Your task to perform on an android device: What is the news today? Image 0: 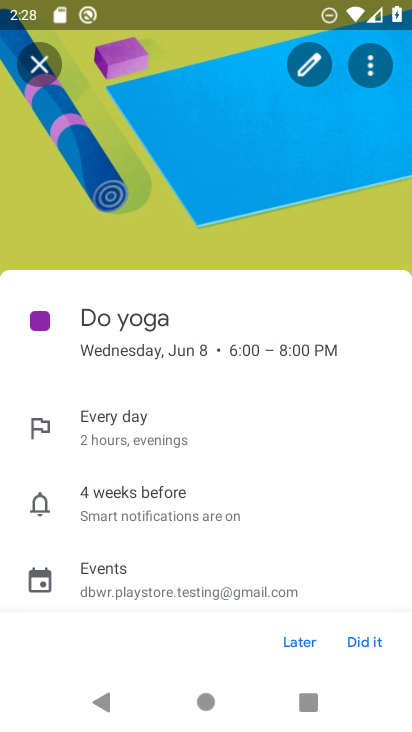
Step 0: click (28, 58)
Your task to perform on an android device: What is the news today? Image 1: 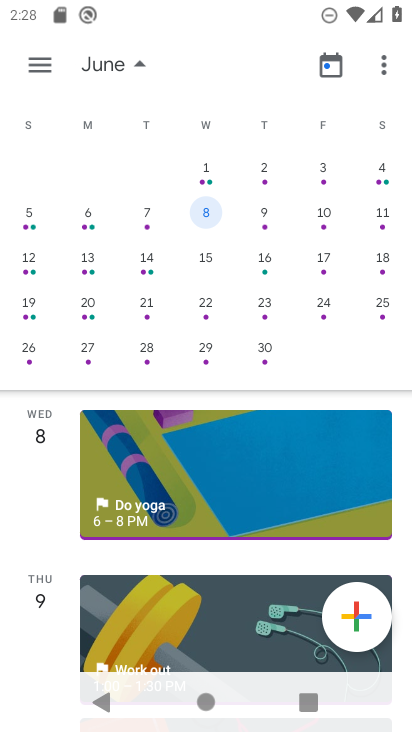
Step 1: press home button
Your task to perform on an android device: What is the news today? Image 2: 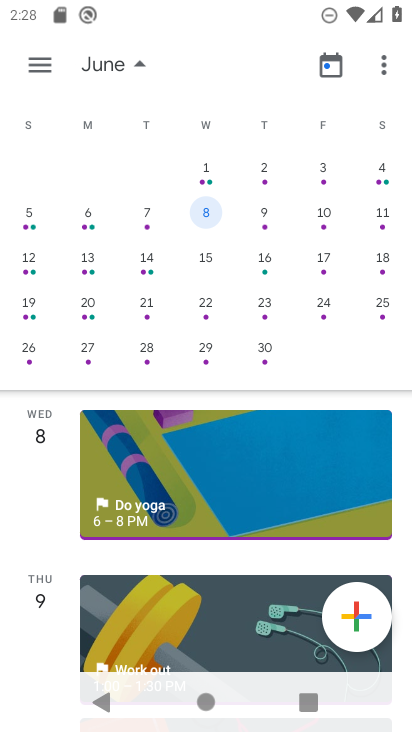
Step 2: press home button
Your task to perform on an android device: What is the news today? Image 3: 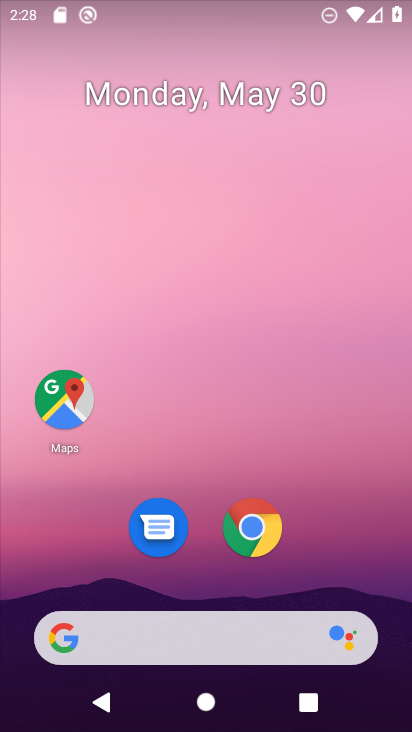
Step 3: drag from (6, 267) to (388, 513)
Your task to perform on an android device: What is the news today? Image 4: 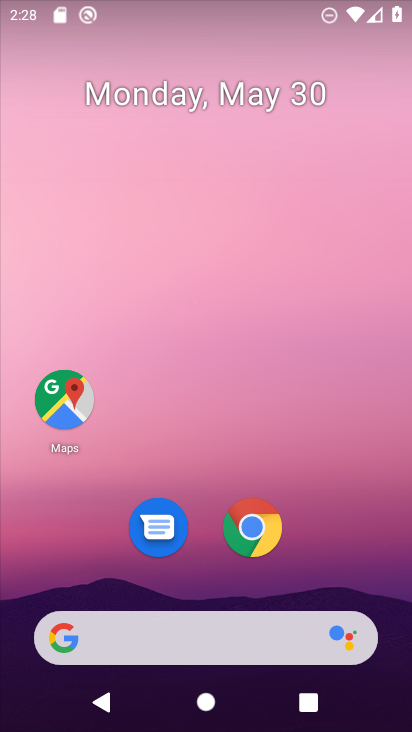
Step 4: click (9, 279)
Your task to perform on an android device: What is the news today? Image 5: 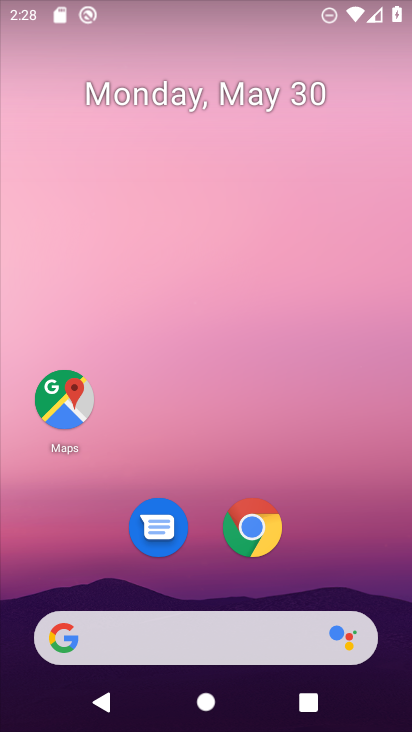
Step 5: drag from (59, 303) to (313, 485)
Your task to perform on an android device: What is the news today? Image 6: 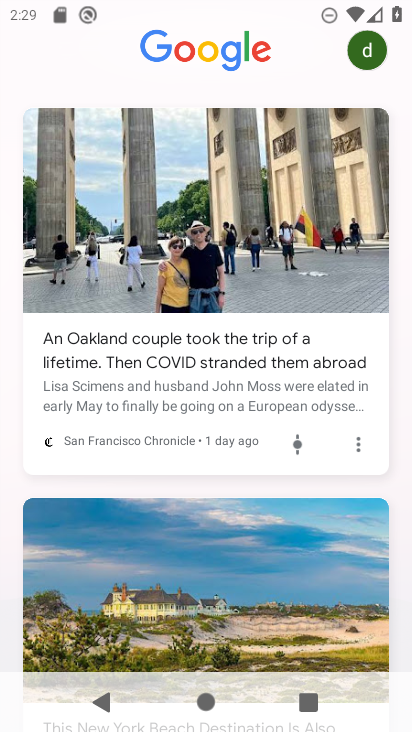
Step 6: drag from (174, 340) to (125, 24)
Your task to perform on an android device: What is the news today? Image 7: 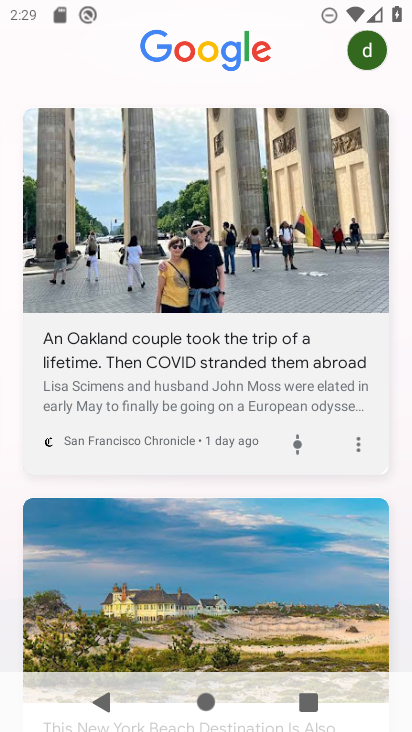
Step 7: drag from (226, 249) to (218, 176)
Your task to perform on an android device: What is the news today? Image 8: 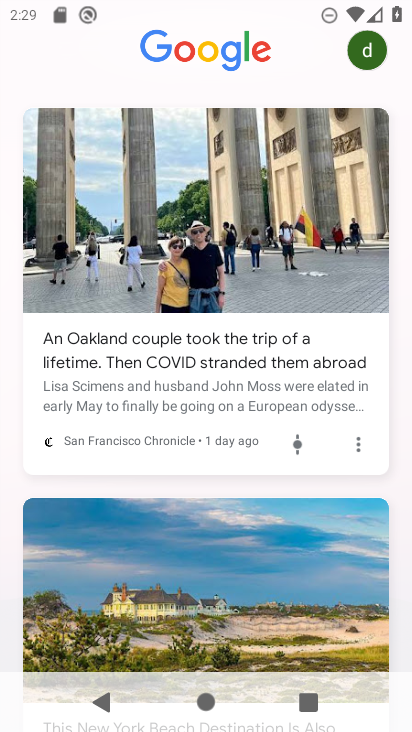
Step 8: drag from (227, 392) to (227, 268)
Your task to perform on an android device: What is the news today? Image 9: 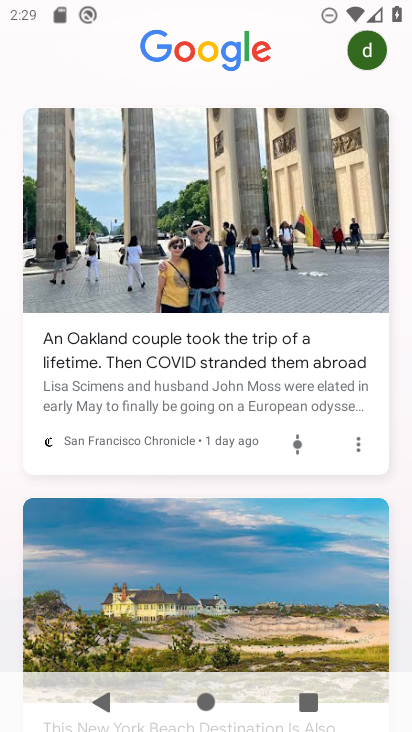
Step 9: drag from (233, 491) to (202, 255)
Your task to perform on an android device: What is the news today? Image 10: 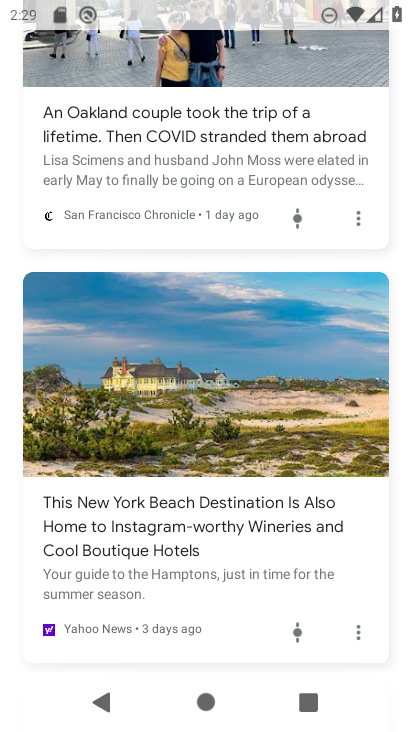
Step 10: drag from (162, 369) to (180, 187)
Your task to perform on an android device: What is the news today? Image 11: 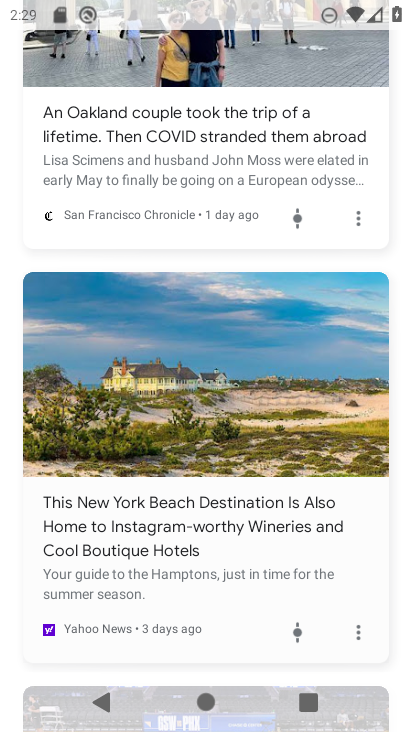
Step 11: drag from (224, 401) to (224, 181)
Your task to perform on an android device: What is the news today? Image 12: 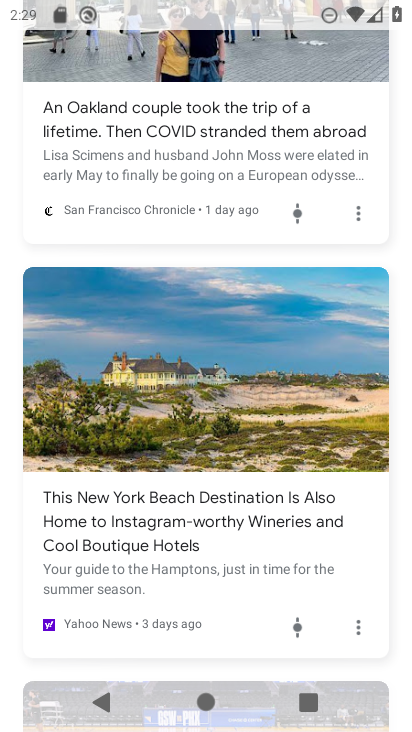
Step 12: drag from (229, 443) to (232, 194)
Your task to perform on an android device: What is the news today? Image 13: 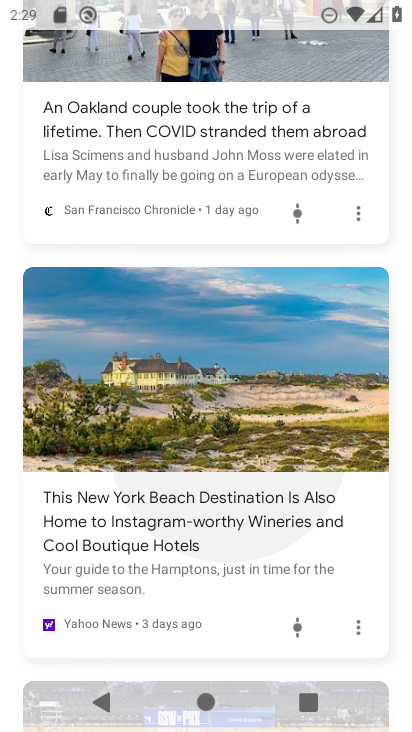
Step 13: drag from (239, 193) to (224, 241)
Your task to perform on an android device: What is the news today? Image 14: 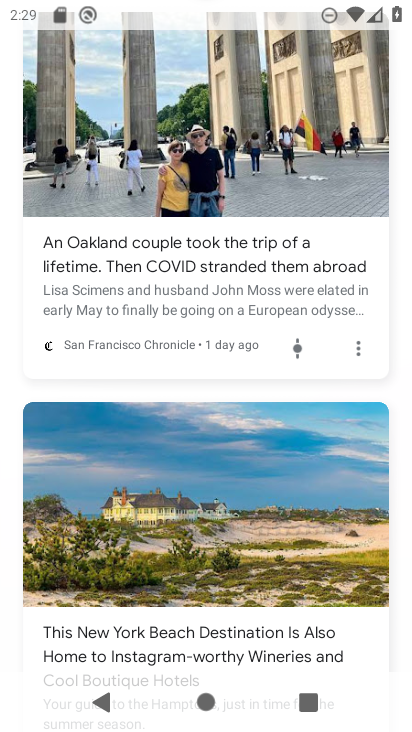
Step 14: click (228, 234)
Your task to perform on an android device: What is the news today? Image 15: 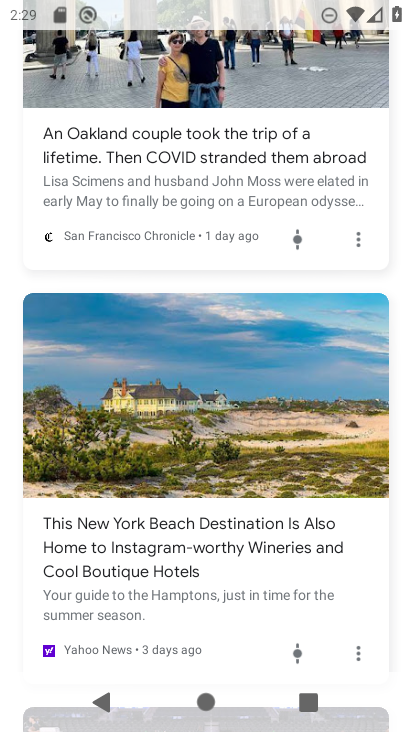
Step 15: task complete